Your task to perform on an android device: Open settings on Google Maps Image 0: 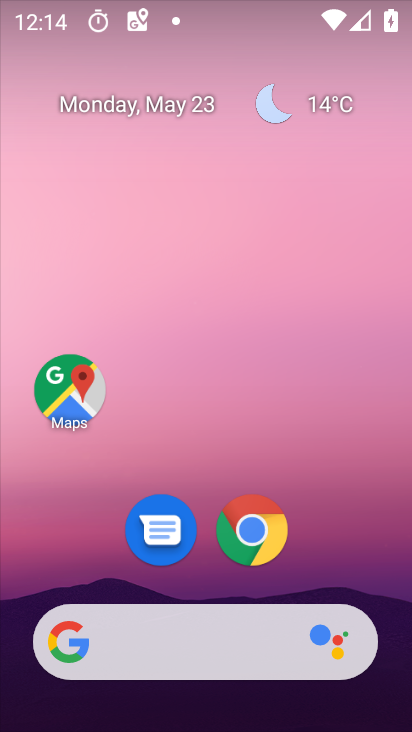
Step 0: click (51, 397)
Your task to perform on an android device: Open settings on Google Maps Image 1: 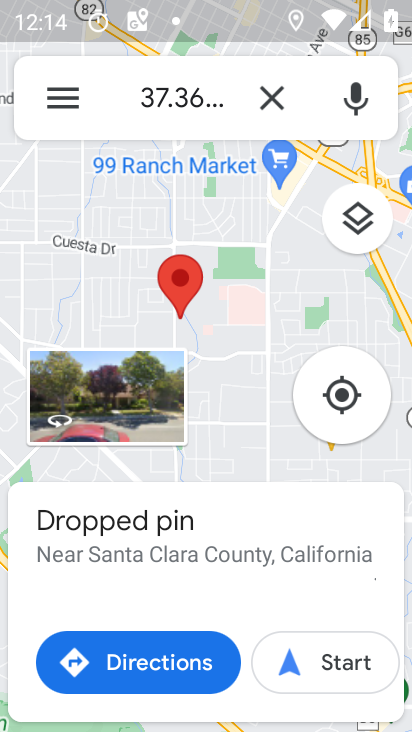
Step 1: task complete